Your task to perform on an android device: Search for "razer deathadder" on amazon, select the first entry, and add it to the cart. Image 0: 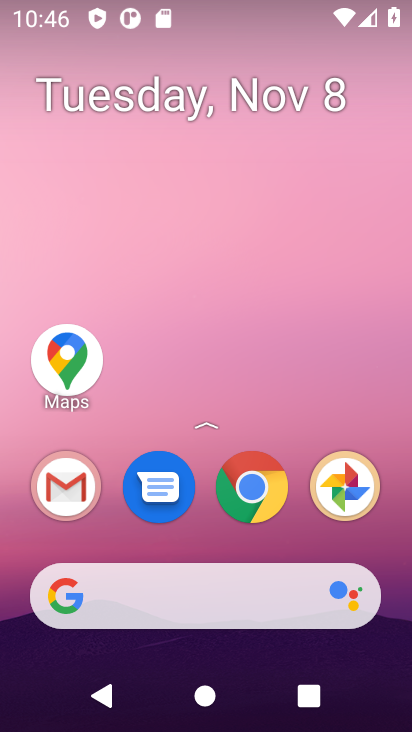
Step 0: click (145, 608)
Your task to perform on an android device: Search for "razer deathadder" on amazon, select the first entry, and add it to the cart. Image 1: 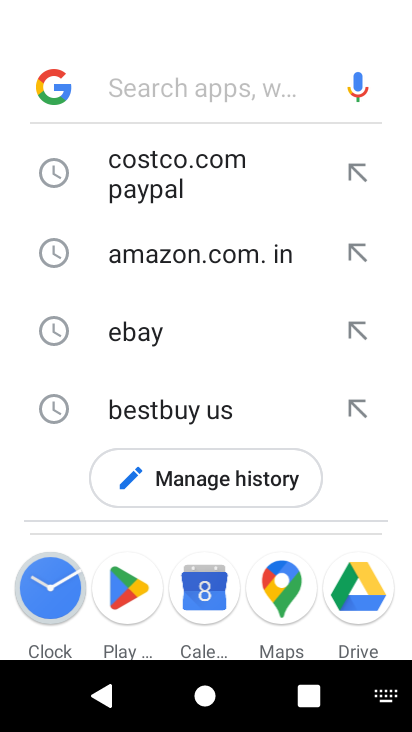
Step 1: click (198, 262)
Your task to perform on an android device: Search for "razer deathadder" on amazon, select the first entry, and add it to the cart. Image 2: 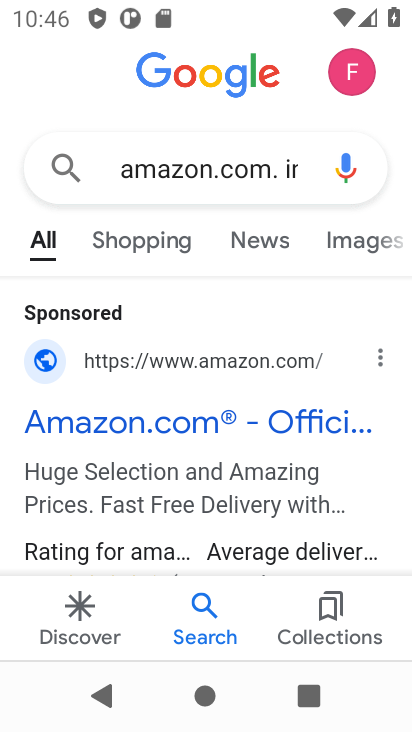
Step 2: drag from (158, 469) to (210, 308)
Your task to perform on an android device: Search for "razer deathadder" on amazon, select the first entry, and add it to the cart. Image 3: 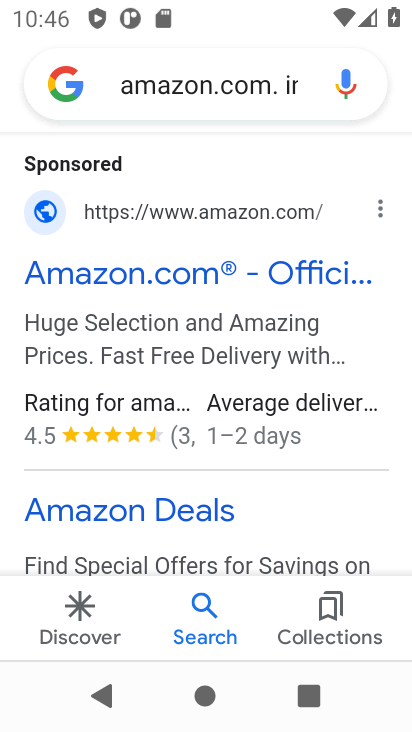
Step 3: click (122, 510)
Your task to perform on an android device: Search for "razer deathadder" on amazon, select the first entry, and add it to the cart. Image 4: 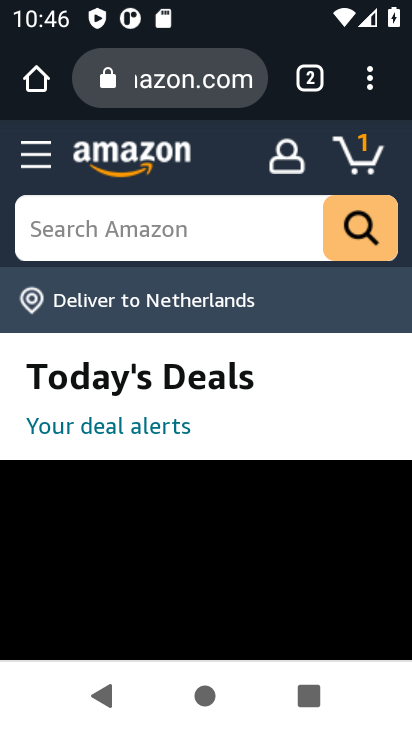
Step 4: click (198, 229)
Your task to perform on an android device: Search for "razer deathadder" on amazon, select the first entry, and add it to the cart. Image 5: 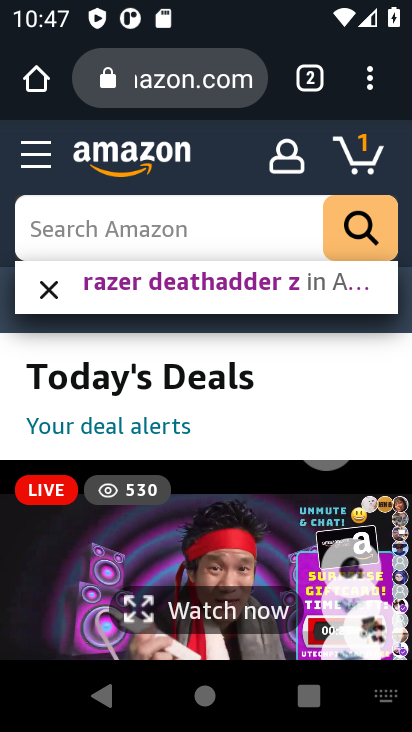
Step 5: click (125, 210)
Your task to perform on an android device: Search for "razer deathadder" on amazon, select the first entry, and add it to the cart. Image 6: 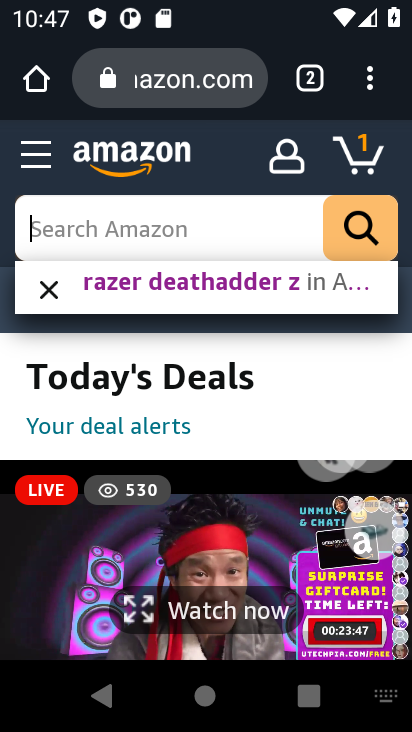
Step 6: type "razer deathadde"
Your task to perform on an android device: Search for "razer deathadder" on amazon, select the first entry, and add it to the cart. Image 7: 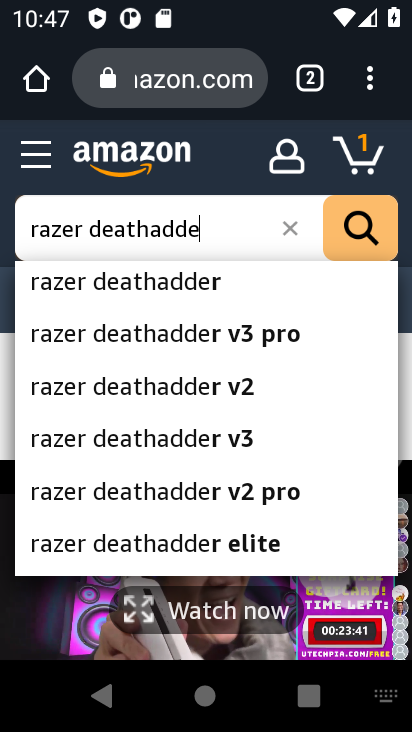
Step 7: click (357, 230)
Your task to perform on an android device: Search for "razer deathadder" on amazon, select the first entry, and add it to the cart. Image 8: 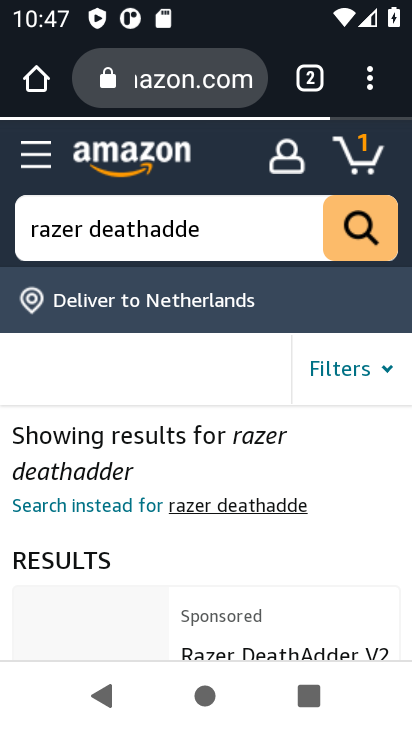
Step 8: drag from (250, 598) to (264, 404)
Your task to perform on an android device: Search for "razer deathadder" on amazon, select the first entry, and add it to the cart. Image 9: 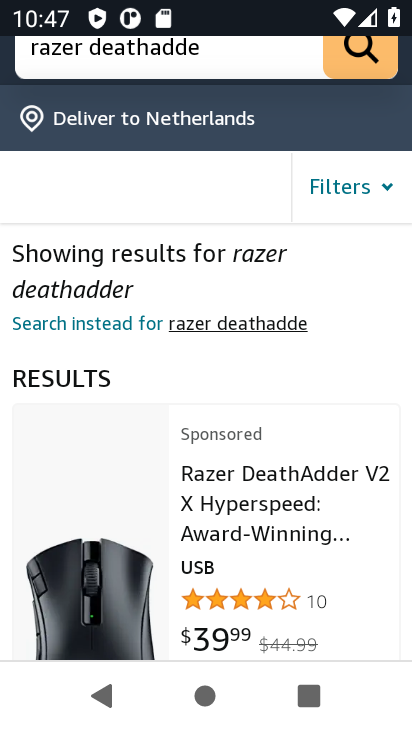
Step 9: drag from (243, 550) to (261, 352)
Your task to perform on an android device: Search for "razer deathadder" on amazon, select the first entry, and add it to the cart. Image 10: 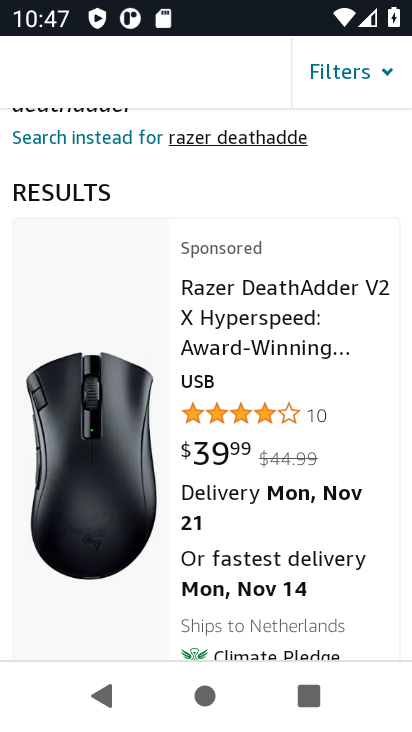
Step 10: drag from (228, 532) to (259, 415)
Your task to perform on an android device: Search for "razer deathadder" on amazon, select the first entry, and add it to the cart. Image 11: 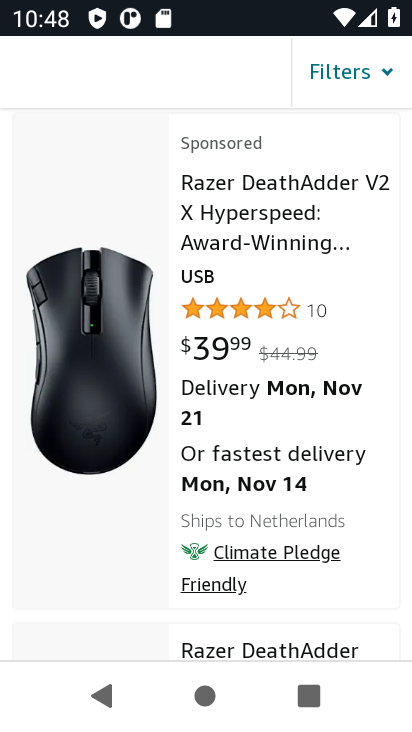
Step 11: drag from (122, 401) to (125, 135)
Your task to perform on an android device: Search for "razer deathadder" on amazon, select the first entry, and add it to the cart. Image 12: 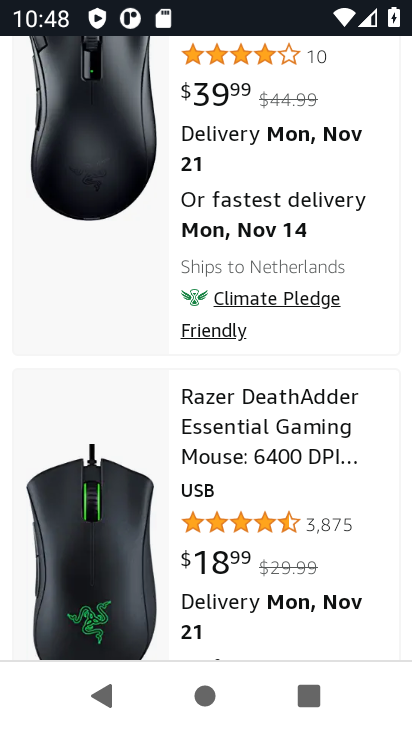
Step 12: click (70, 129)
Your task to perform on an android device: Search for "razer deathadder" on amazon, select the first entry, and add it to the cart. Image 13: 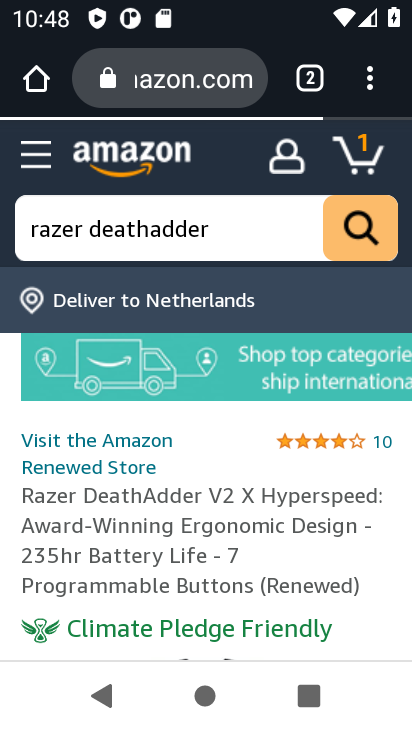
Step 13: drag from (212, 583) to (212, 375)
Your task to perform on an android device: Search for "razer deathadder" on amazon, select the first entry, and add it to the cart. Image 14: 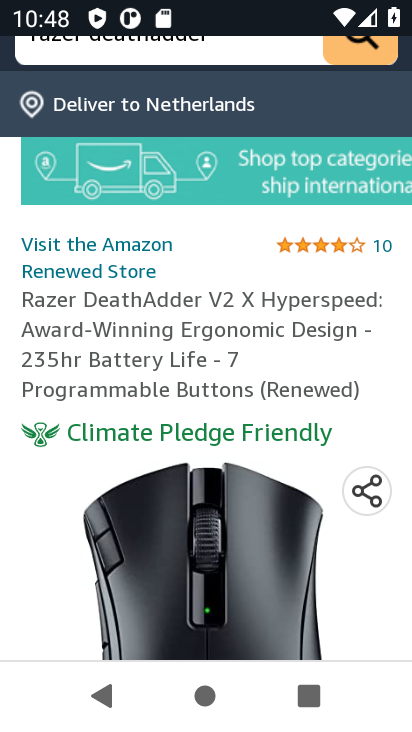
Step 14: drag from (215, 612) to (215, 325)
Your task to perform on an android device: Search for "razer deathadder" on amazon, select the first entry, and add it to the cart. Image 15: 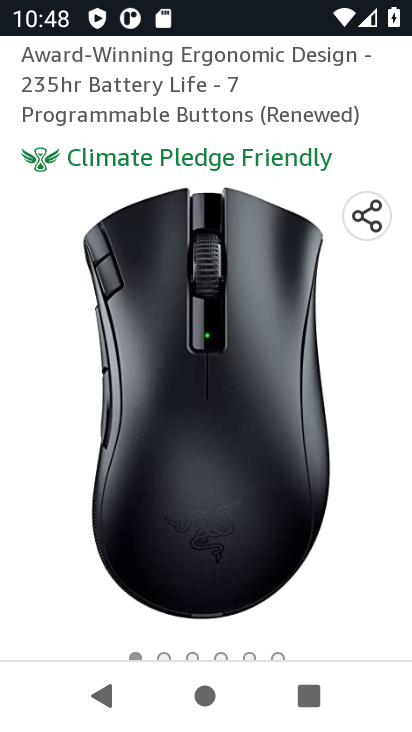
Step 15: drag from (213, 533) to (218, 312)
Your task to perform on an android device: Search for "razer deathadder" on amazon, select the first entry, and add it to the cart. Image 16: 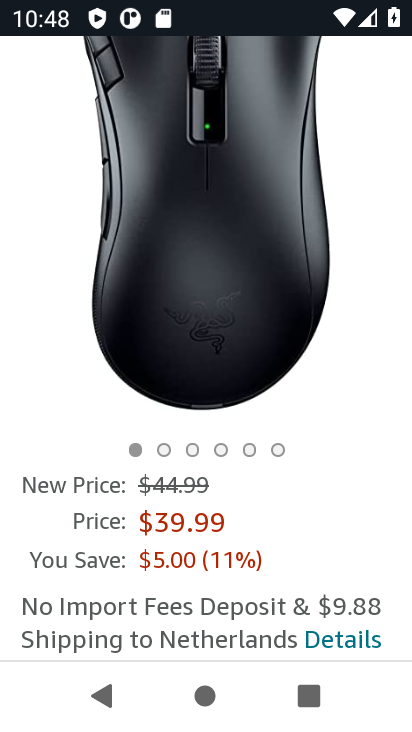
Step 16: drag from (184, 556) to (186, 382)
Your task to perform on an android device: Search for "razer deathadder" on amazon, select the first entry, and add it to the cart. Image 17: 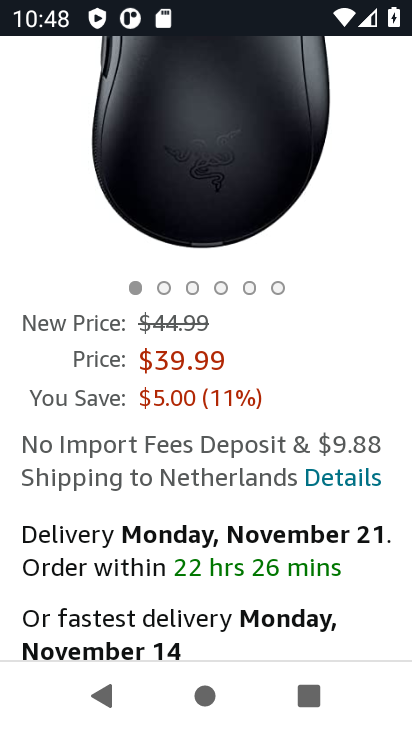
Step 17: drag from (181, 606) to (181, 460)
Your task to perform on an android device: Search for "razer deathadder" on amazon, select the first entry, and add it to the cart. Image 18: 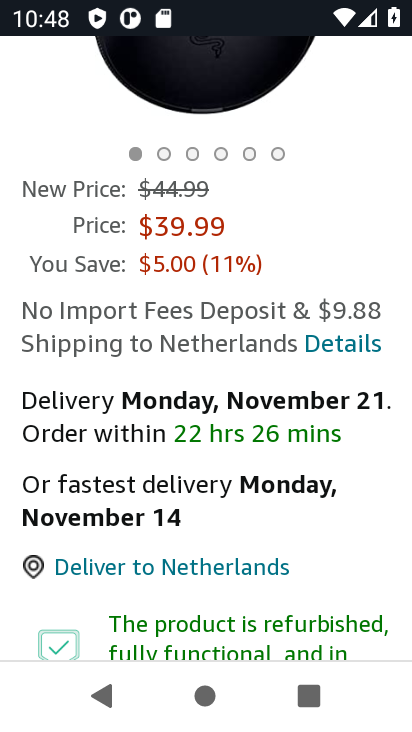
Step 18: drag from (174, 636) to (224, 332)
Your task to perform on an android device: Search for "razer deathadder" on amazon, select the first entry, and add it to the cart. Image 19: 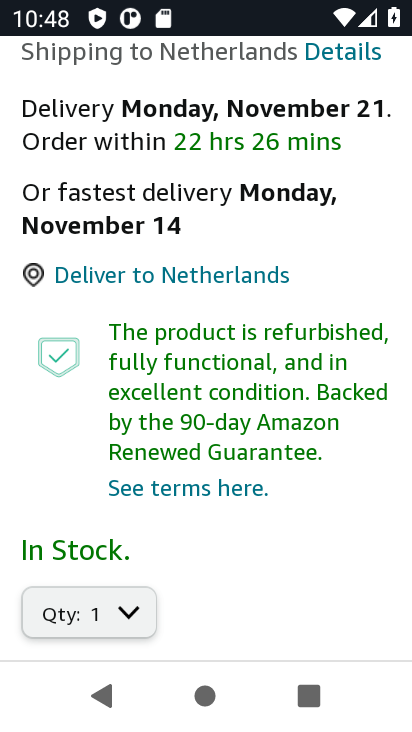
Step 19: drag from (204, 581) to (226, 350)
Your task to perform on an android device: Search for "razer deathadder" on amazon, select the first entry, and add it to the cart. Image 20: 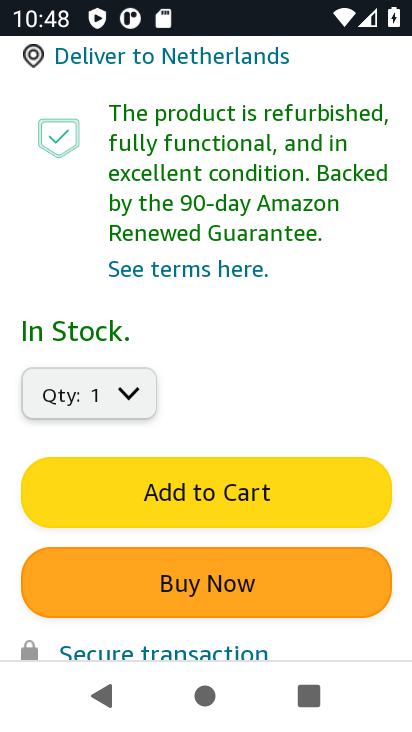
Step 20: click (198, 487)
Your task to perform on an android device: Search for "razer deathadder" on amazon, select the first entry, and add it to the cart. Image 21: 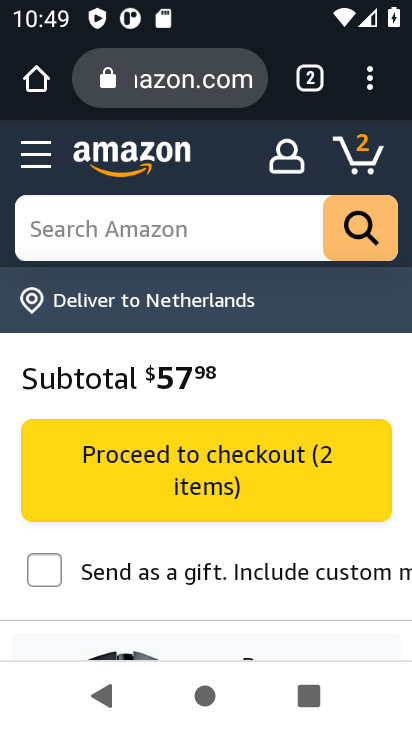
Step 21: task complete